Your task to perform on an android device: What is the recent news? Image 0: 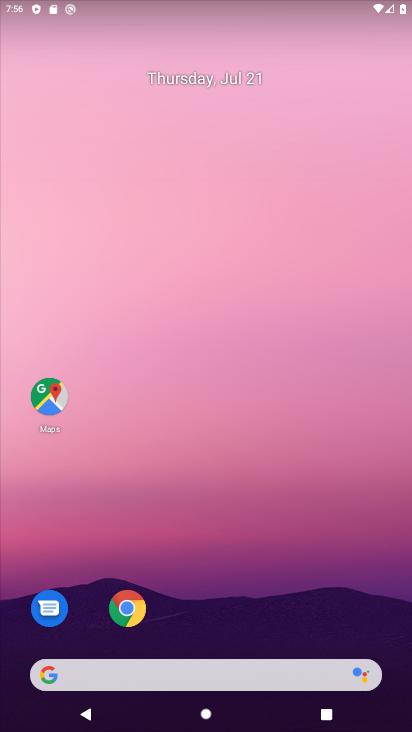
Step 0: drag from (106, 453) to (141, 306)
Your task to perform on an android device: What is the recent news? Image 1: 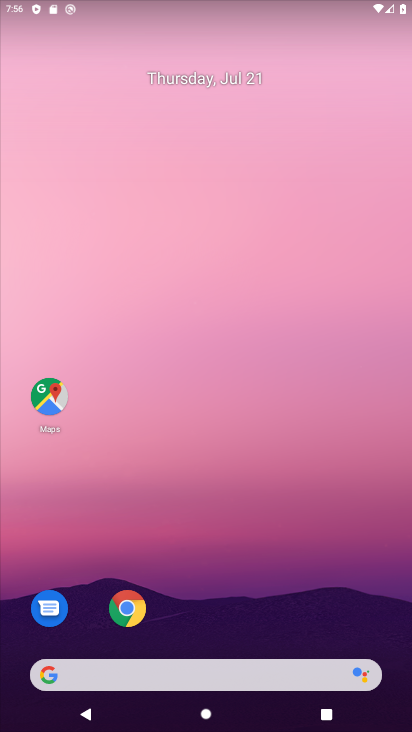
Step 1: drag from (38, 712) to (220, 232)
Your task to perform on an android device: What is the recent news? Image 2: 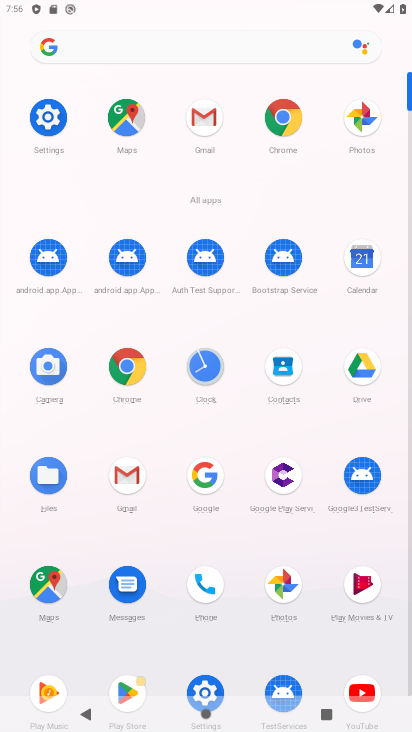
Step 2: click (213, 683)
Your task to perform on an android device: What is the recent news? Image 3: 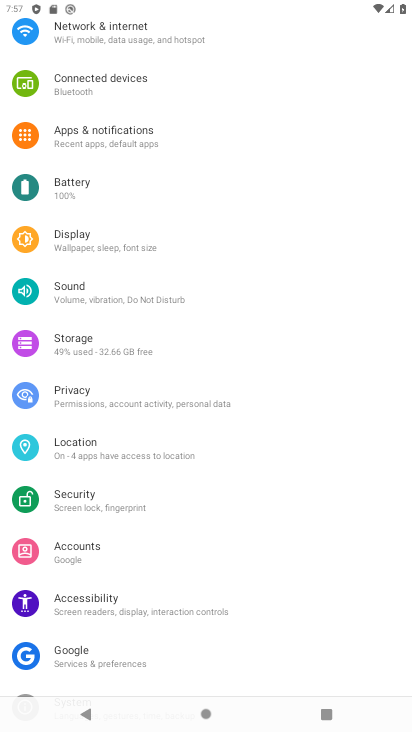
Step 3: press home button
Your task to perform on an android device: What is the recent news? Image 4: 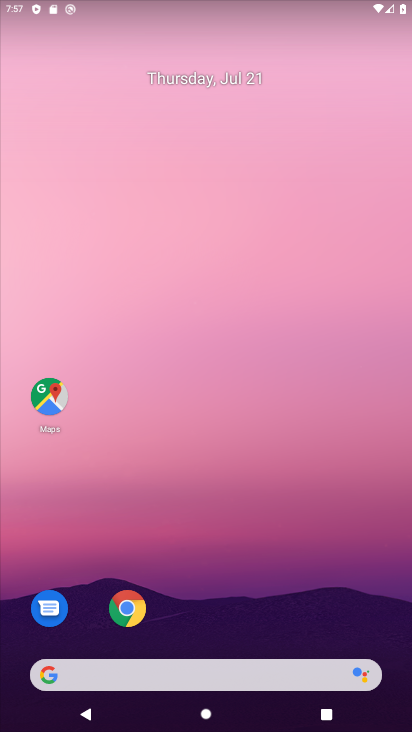
Step 4: click (67, 679)
Your task to perform on an android device: What is the recent news? Image 5: 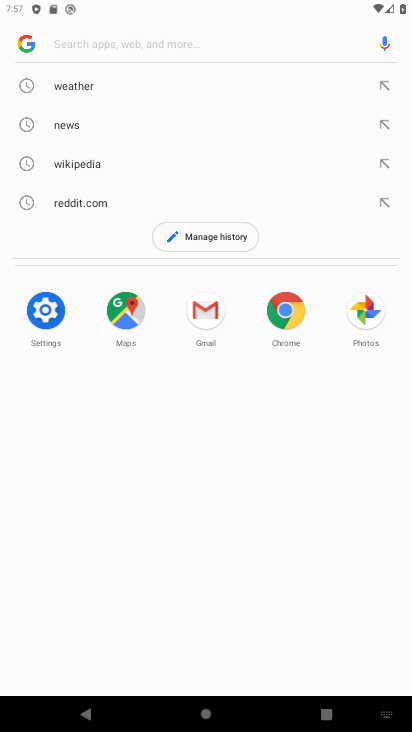
Step 5: type "What is the recent news?"
Your task to perform on an android device: What is the recent news? Image 6: 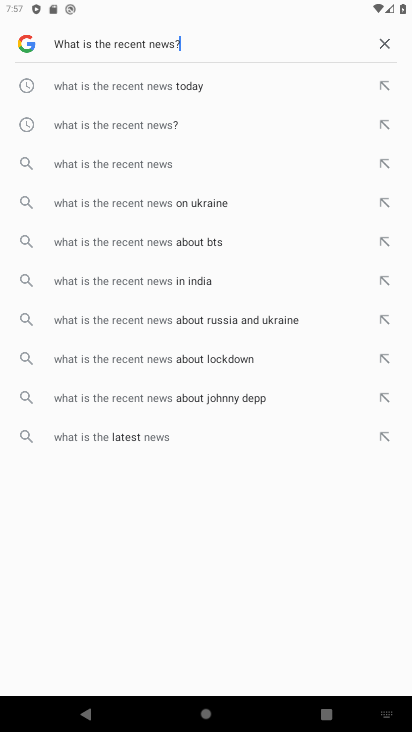
Step 6: type ""
Your task to perform on an android device: What is the recent news? Image 7: 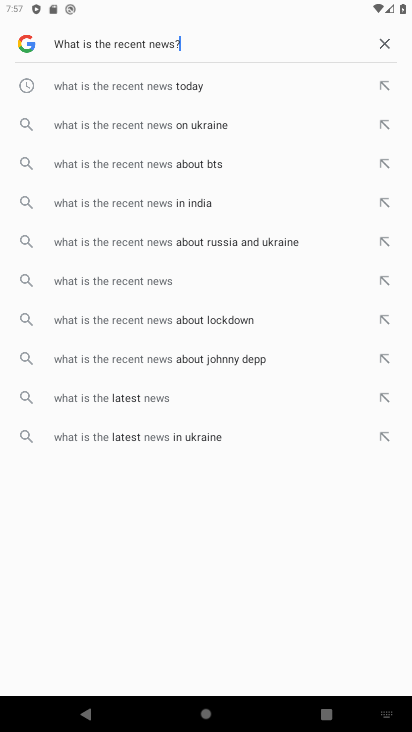
Step 7: type ""
Your task to perform on an android device: What is the recent news? Image 8: 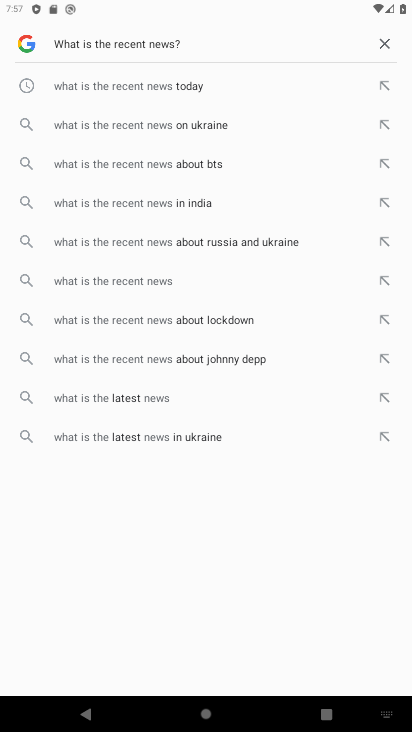
Step 8: type ""
Your task to perform on an android device: What is the recent news? Image 9: 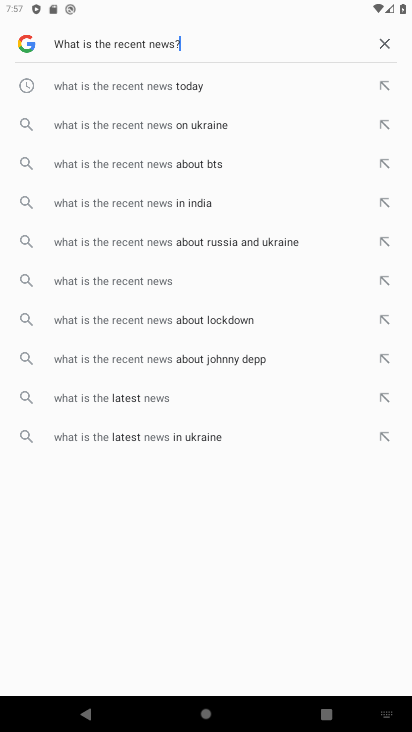
Step 9: task complete